Your task to perform on an android device: turn off wifi Image 0: 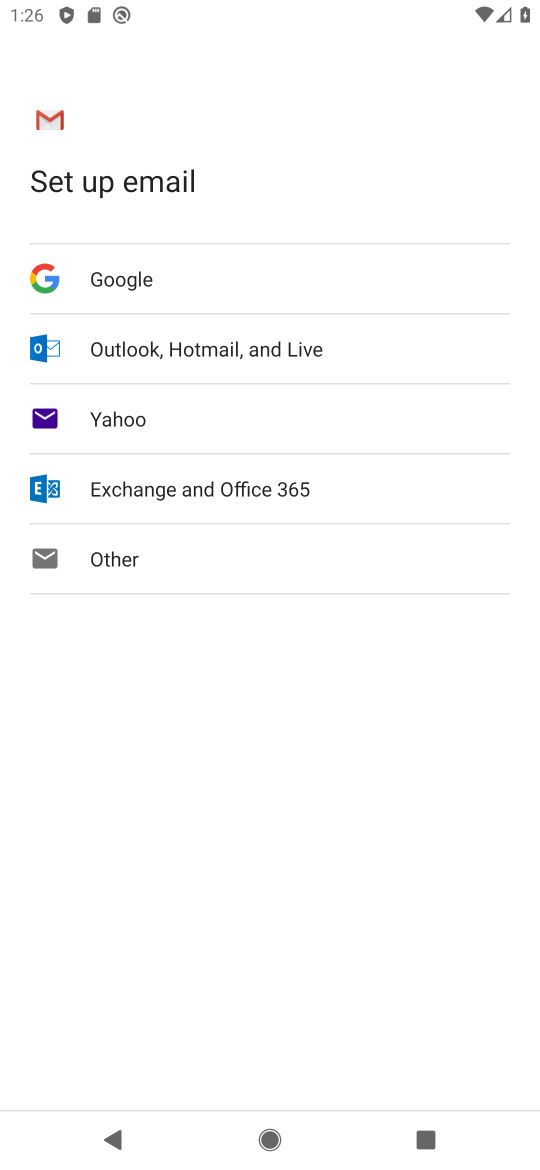
Step 0: drag from (379, 9) to (222, 834)
Your task to perform on an android device: turn off wifi Image 1: 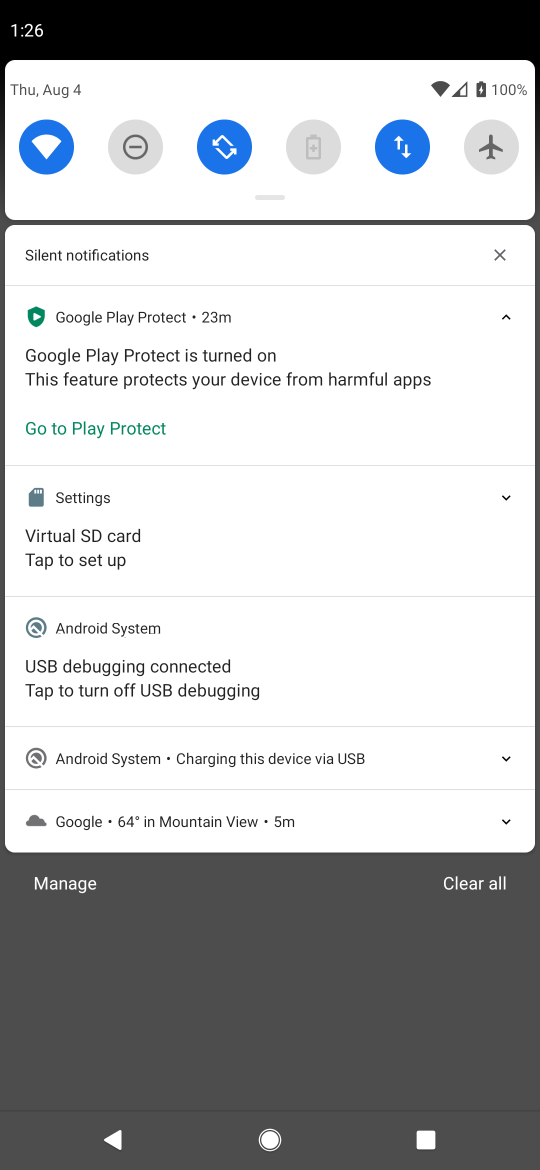
Step 1: click (42, 149)
Your task to perform on an android device: turn off wifi Image 2: 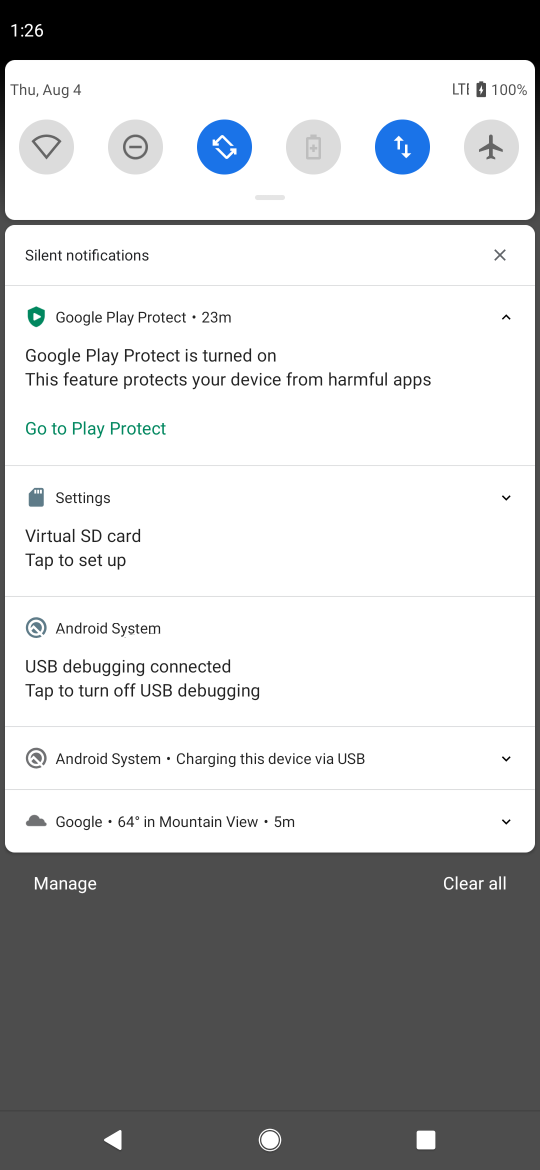
Step 2: task complete